Your task to perform on an android device: Go to settings Image 0: 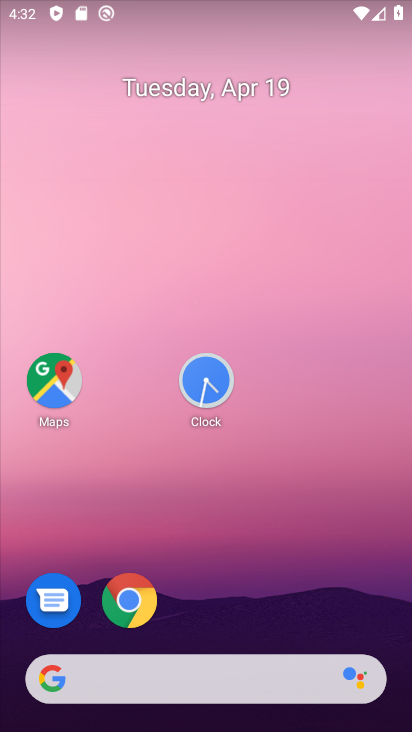
Step 0: drag from (248, 501) to (3, 7)
Your task to perform on an android device: Go to settings Image 1: 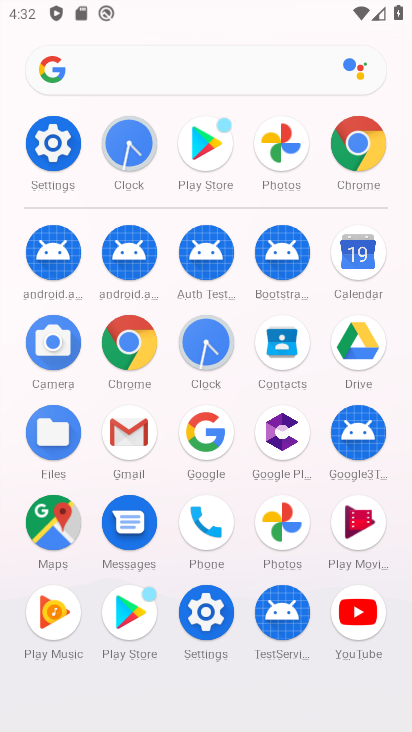
Step 1: click (63, 143)
Your task to perform on an android device: Go to settings Image 2: 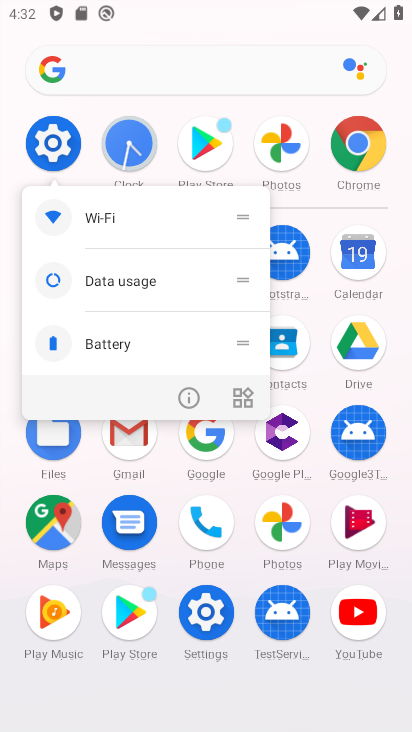
Step 2: click (51, 146)
Your task to perform on an android device: Go to settings Image 3: 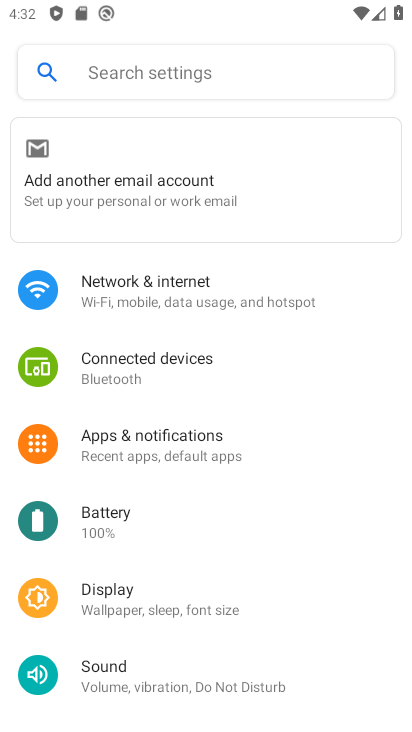
Step 3: drag from (219, 212) to (161, 309)
Your task to perform on an android device: Go to settings Image 4: 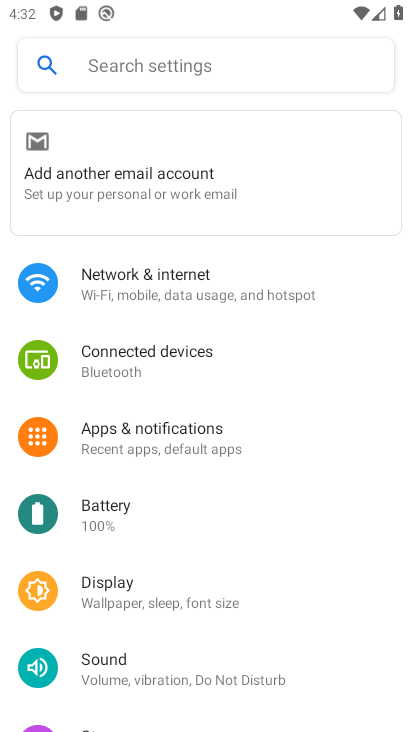
Step 4: drag from (179, 489) to (127, 360)
Your task to perform on an android device: Go to settings Image 5: 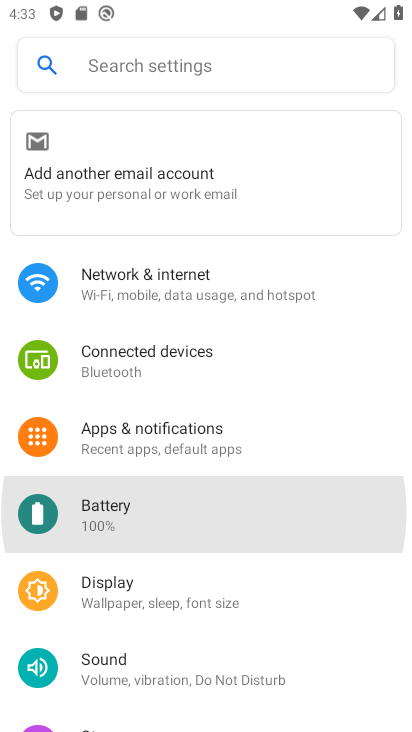
Step 5: drag from (232, 478) to (127, 245)
Your task to perform on an android device: Go to settings Image 6: 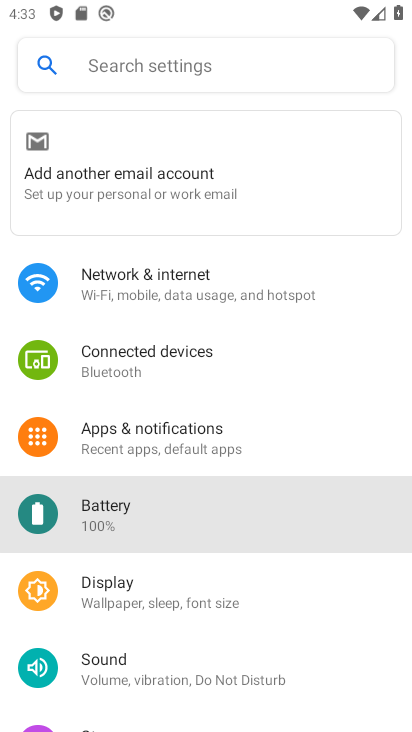
Step 6: drag from (234, 425) to (182, 150)
Your task to perform on an android device: Go to settings Image 7: 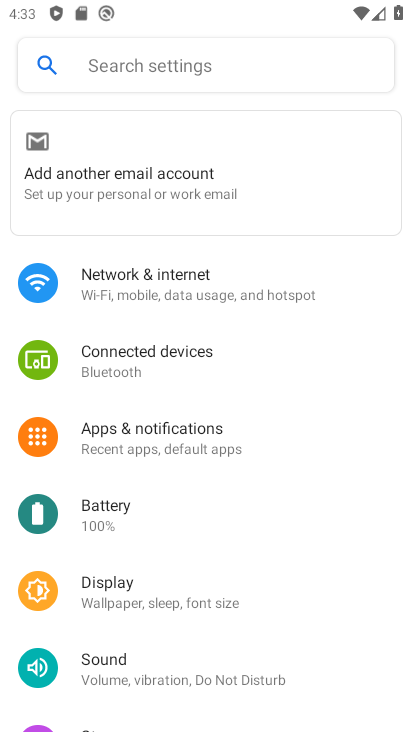
Step 7: drag from (153, 563) to (97, 241)
Your task to perform on an android device: Go to settings Image 8: 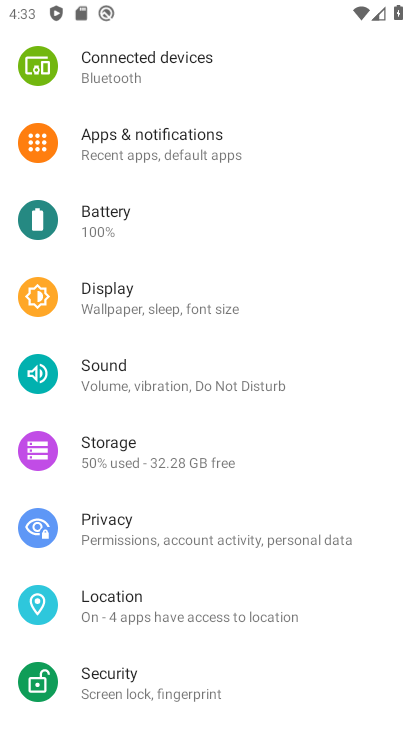
Step 8: drag from (192, 513) to (131, 286)
Your task to perform on an android device: Go to settings Image 9: 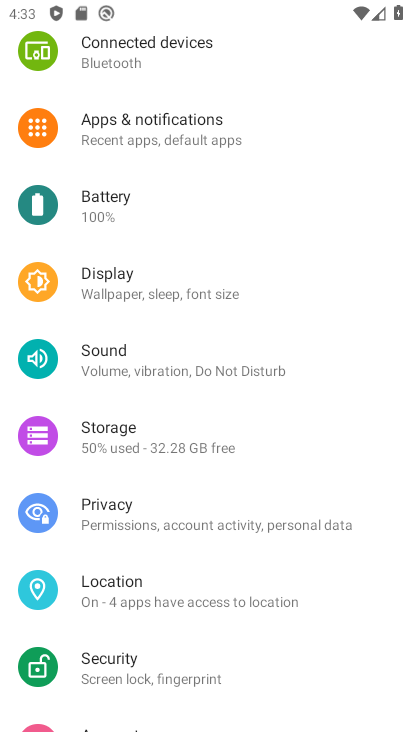
Step 9: click (147, 229)
Your task to perform on an android device: Go to settings Image 10: 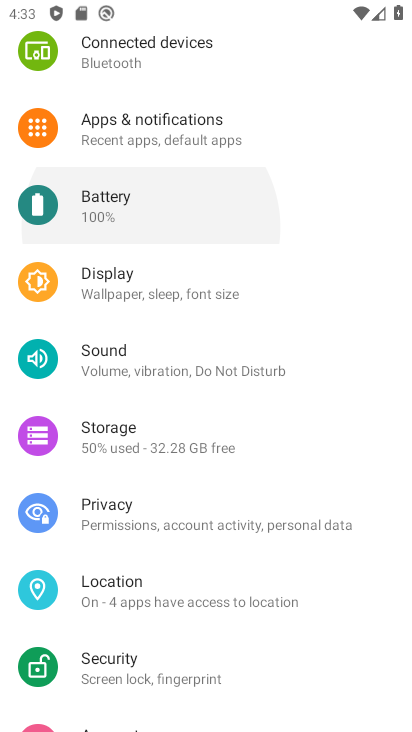
Step 10: click (208, 210)
Your task to perform on an android device: Go to settings Image 11: 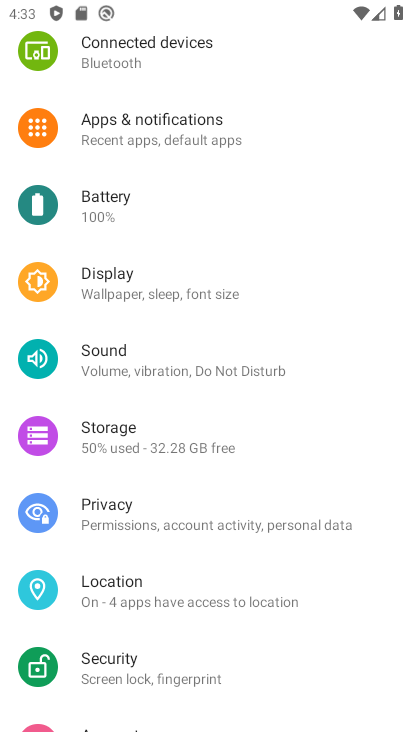
Step 11: drag from (181, 503) to (180, 218)
Your task to perform on an android device: Go to settings Image 12: 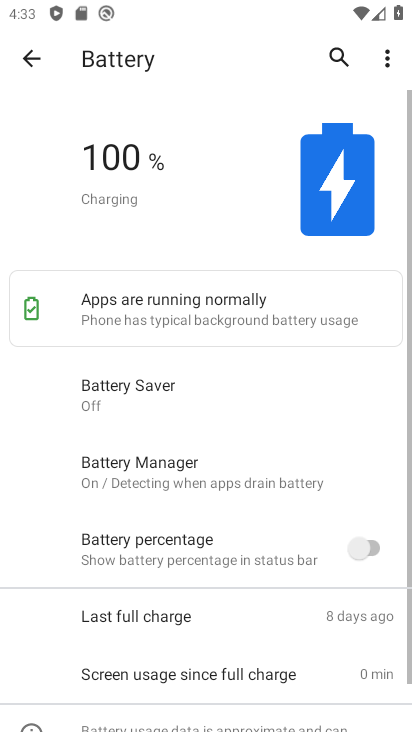
Step 12: drag from (192, 499) to (145, 279)
Your task to perform on an android device: Go to settings Image 13: 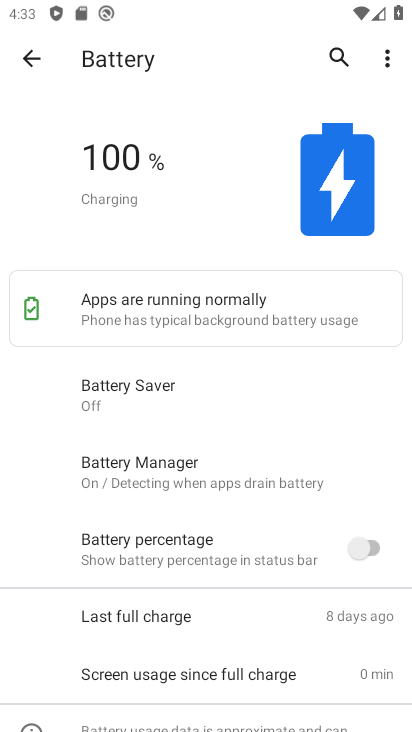
Step 13: click (28, 58)
Your task to perform on an android device: Go to settings Image 14: 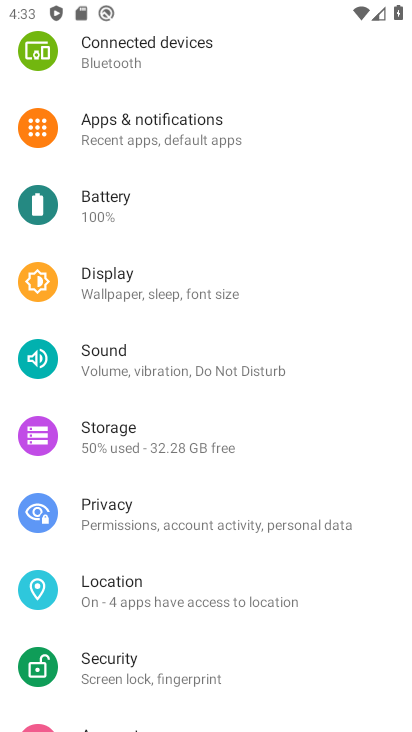
Step 14: drag from (167, 235) to (245, 596)
Your task to perform on an android device: Go to settings Image 15: 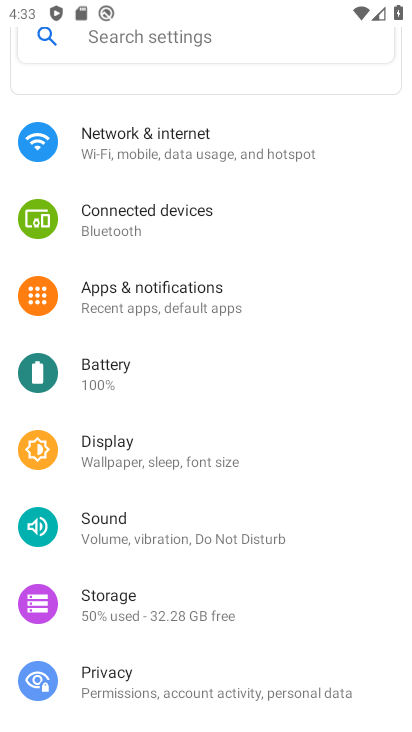
Step 15: drag from (195, 382) to (154, 255)
Your task to perform on an android device: Go to settings Image 16: 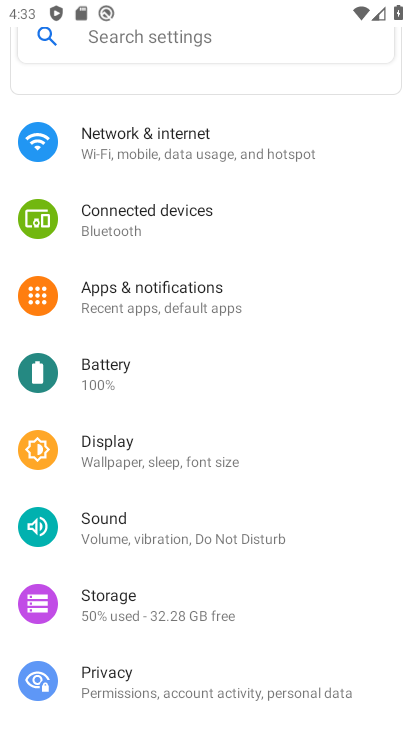
Step 16: drag from (146, 486) to (170, 187)
Your task to perform on an android device: Go to settings Image 17: 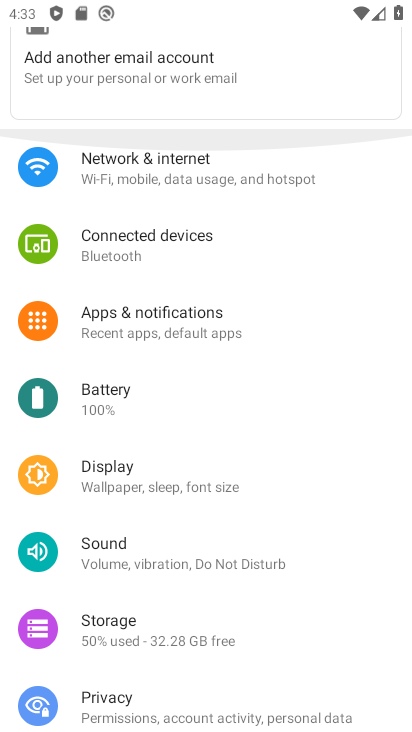
Step 17: drag from (224, 357) to (176, 144)
Your task to perform on an android device: Go to settings Image 18: 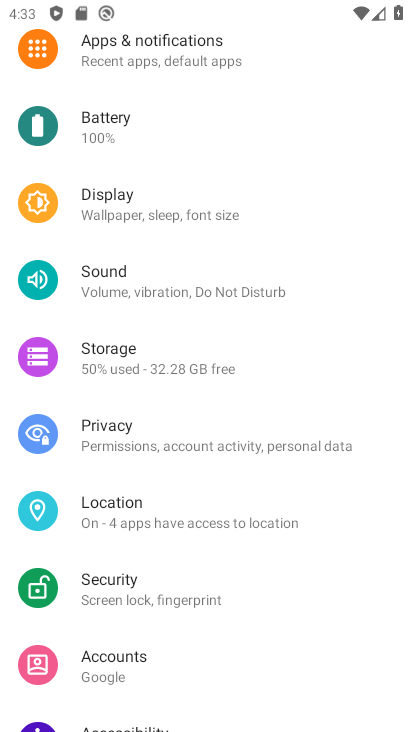
Step 18: click (213, 192)
Your task to perform on an android device: Go to settings Image 19: 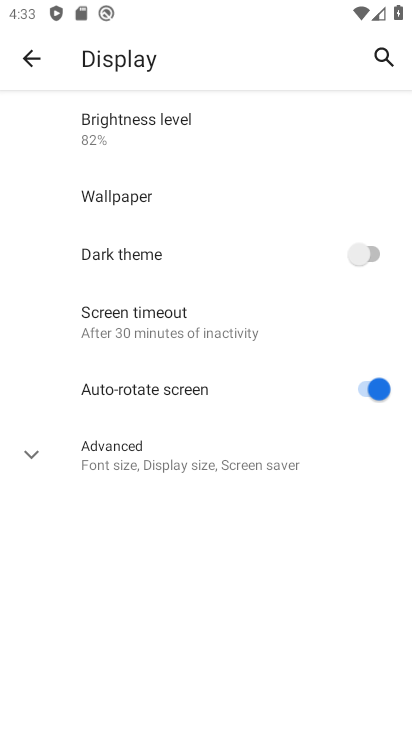
Step 19: click (34, 52)
Your task to perform on an android device: Go to settings Image 20: 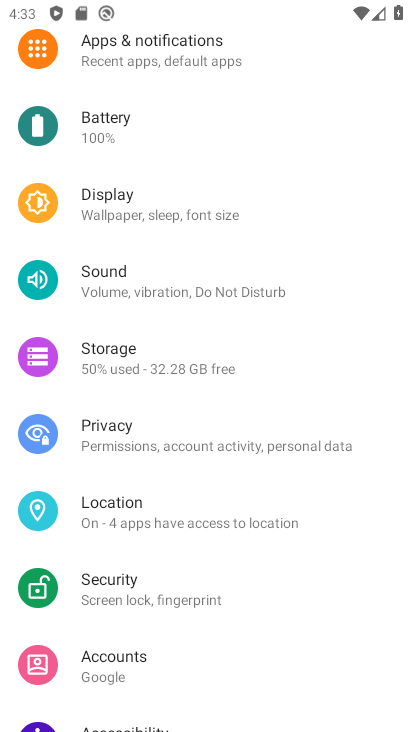
Step 20: task complete